Your task to perform on an android device: Add "logitech g pro" to the cart on costco Image 0: 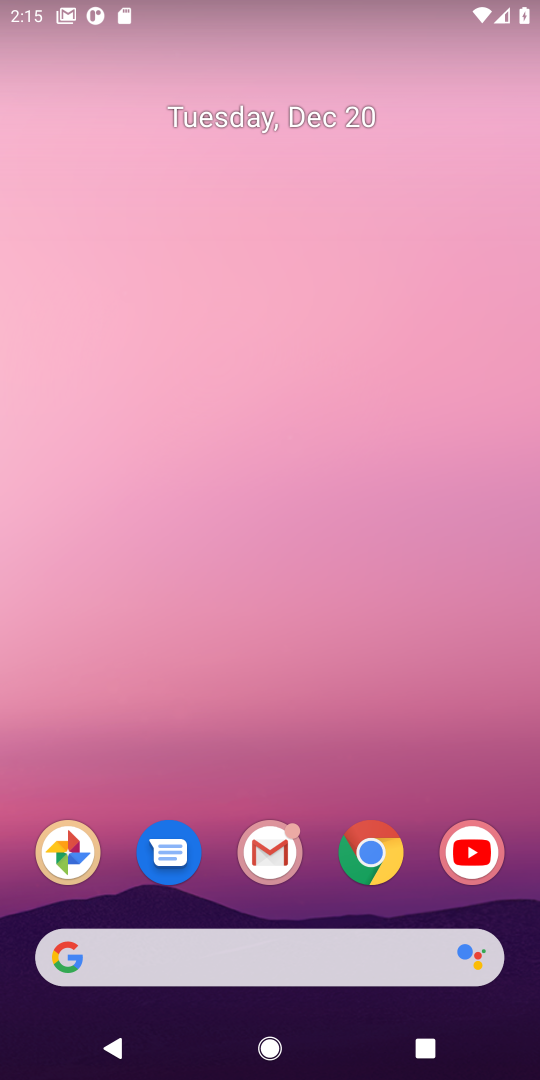
Step 0: click (381, 859)
Your task to perform on an android device: Add "logitech g pro" to the cart on costco Image 1: 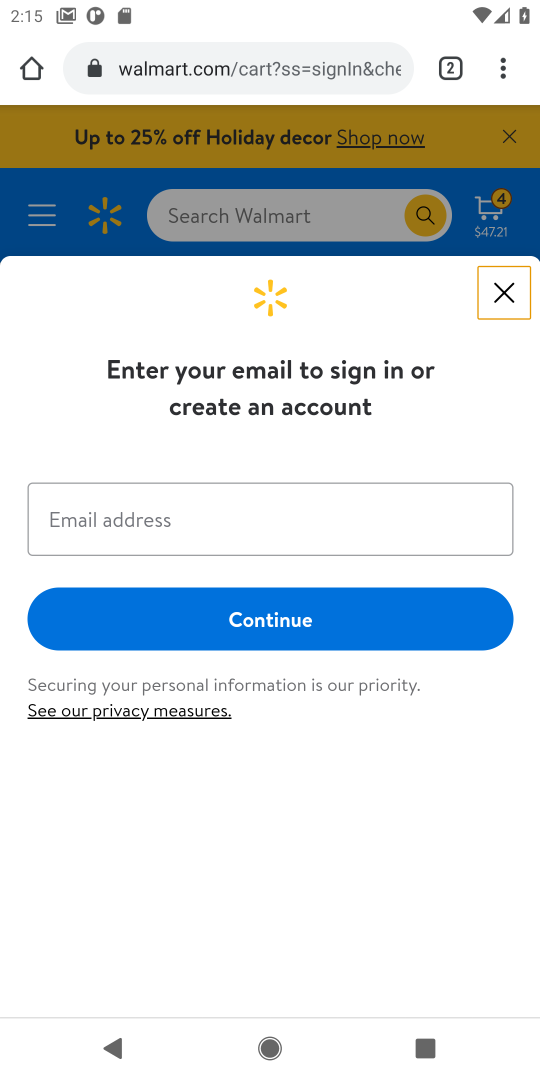
Step 1: click (204, 66)
Your task to perform on an android device: Add "logitech g pro" to the cart on costco Image 2: 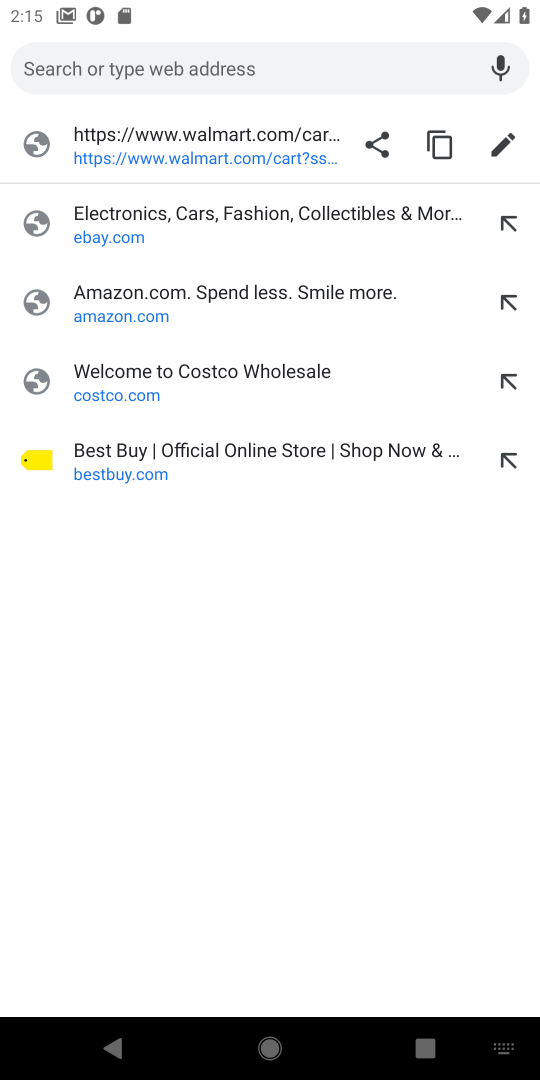
Step 2: click (104, 374)
Your task to perform on an android device: Add "logitech g pro" to the cart on costco Image 3: 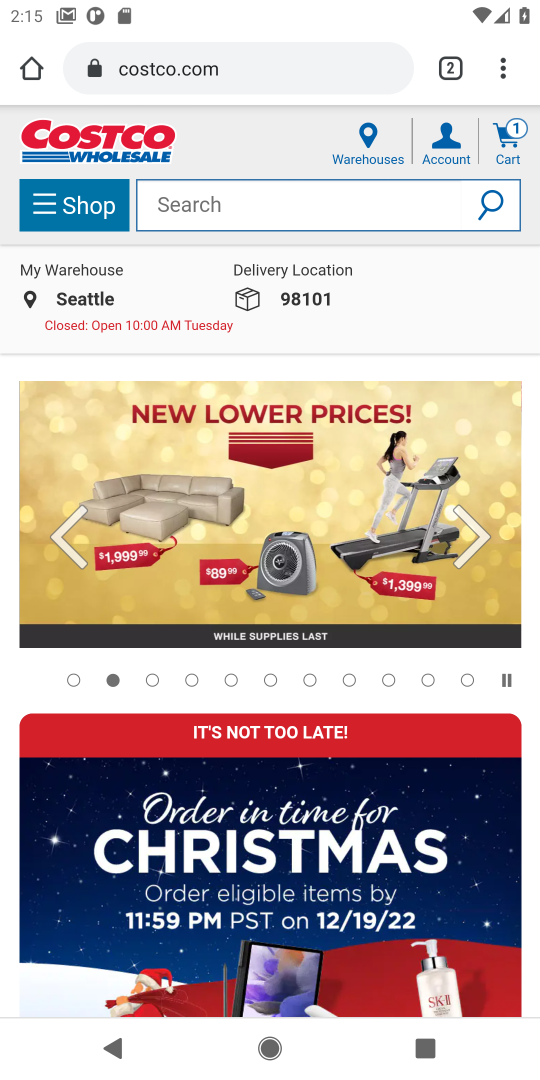
Step 3: click (198, 206)
Your task to perform on an android device: Add "logitech g pro" to the cart on costco Image 4: 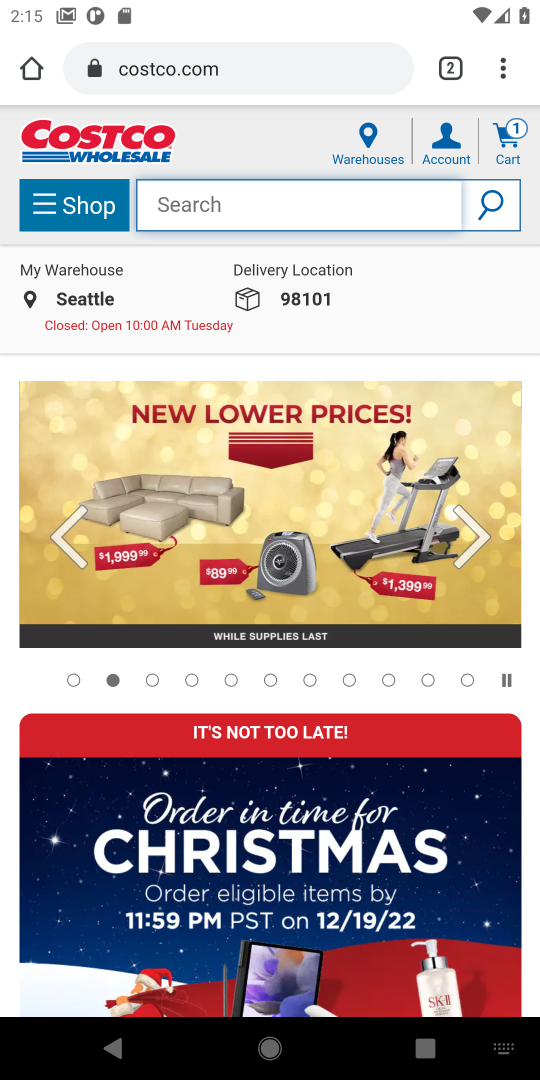
Step 4: type "logitech g pro"
Your task to perform on an android device: Add "logitech g pro" to the cart on costco Image 5: 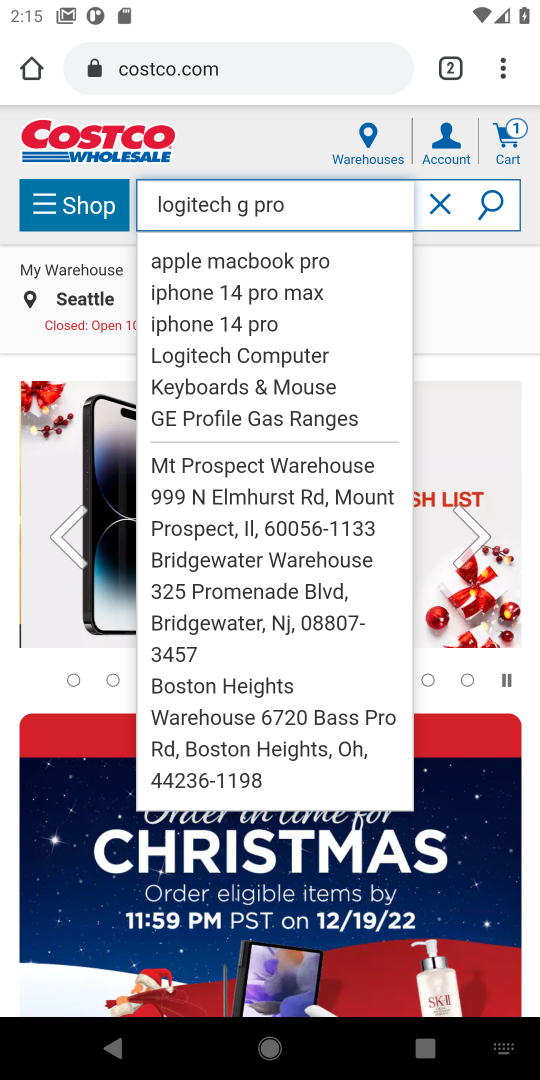
Step 5: click (472, 214)
Your task to perform on an android device: Add "logitech g pro" to the cart on costco Image 6: 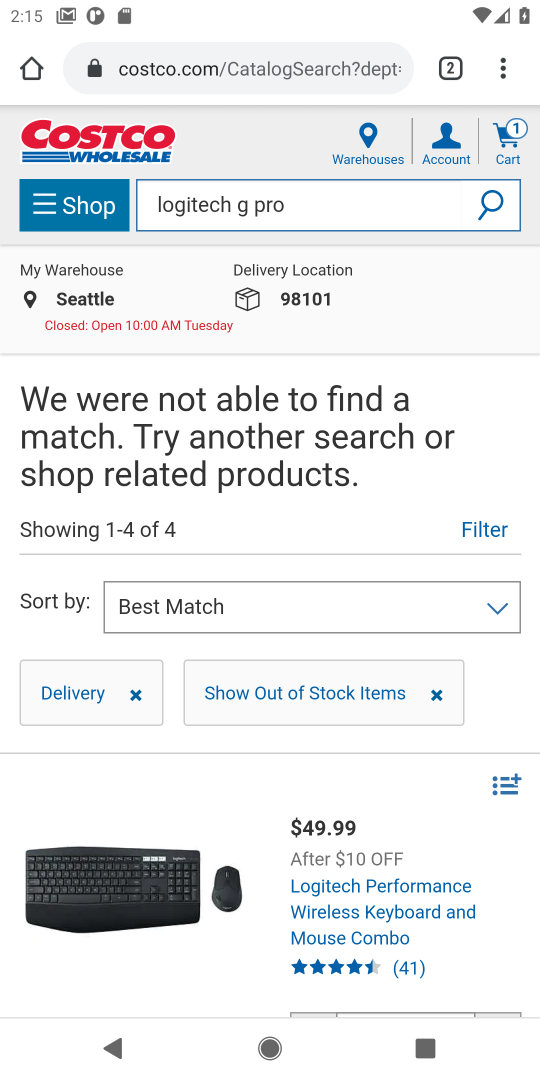
Step 6: task complete